Your task to perform on an android device: turn on bluetooth scan Image 0: 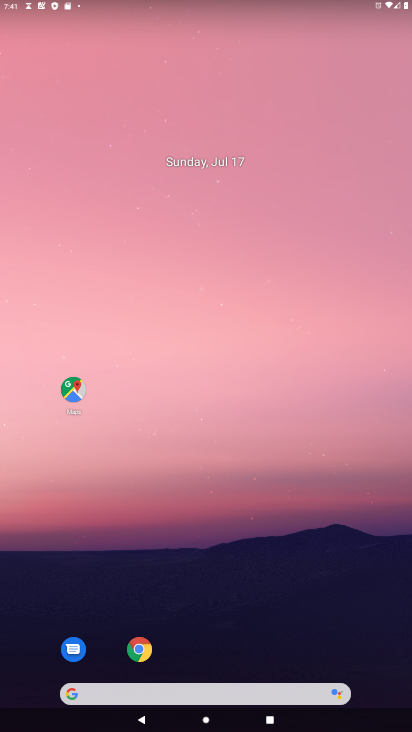
Step 0: drag from (169, 398) to (249, 44)
Your task to perform on an android device: turn on bluetooth scan Image 1: 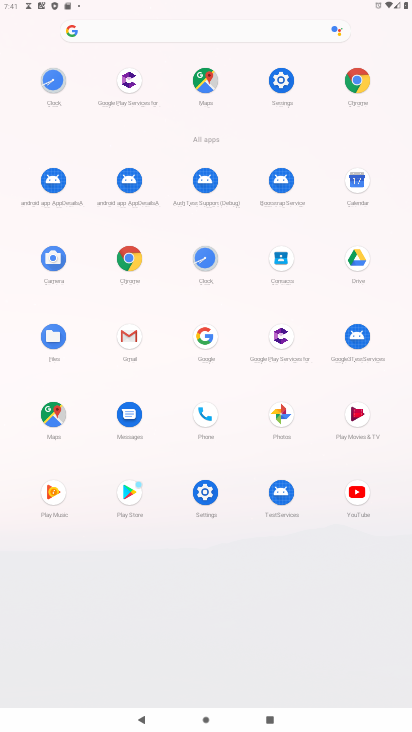
Step 1: click (211, 514)
Your task to perform on an android device: turn on bluetooth scan Image 2: 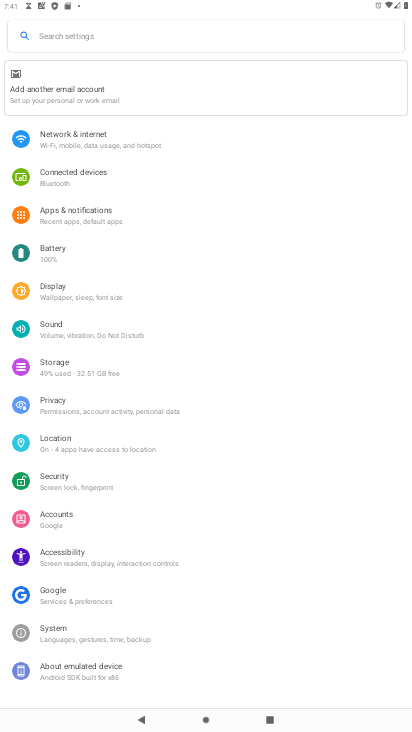
Step 2: click (82, 452)
Your task to perform on an android device: turn on bluetooth scan Image 3: 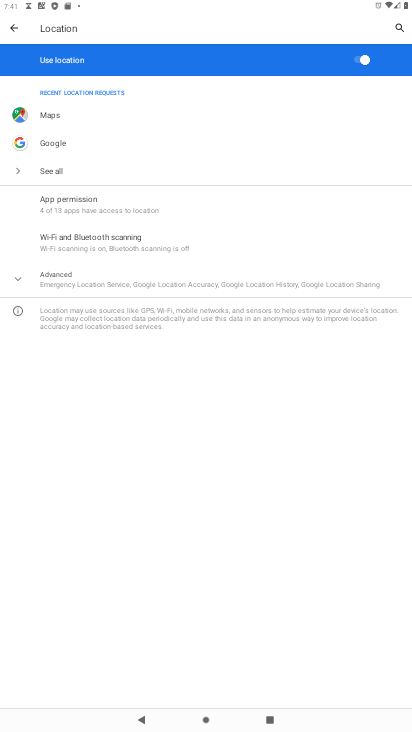
Step 3: click (119, 241)
Your task to perform on an android device: turn on bluetooth scan Image 4: 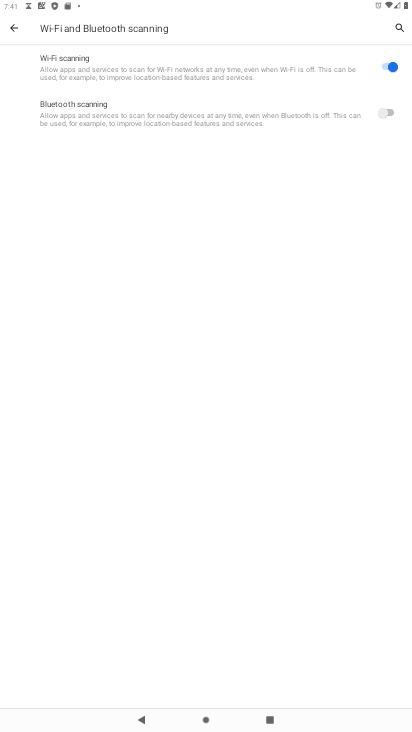
Step 4: click (378, 111)
Your task to perform on an android device: turn on bluetooth scan Image 5: 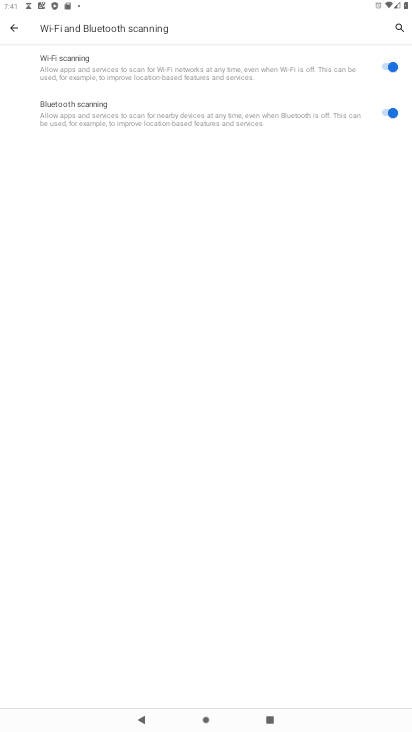
Step 5: task complete